Your task to perform on an android device: Open Reddit.com Image 0: 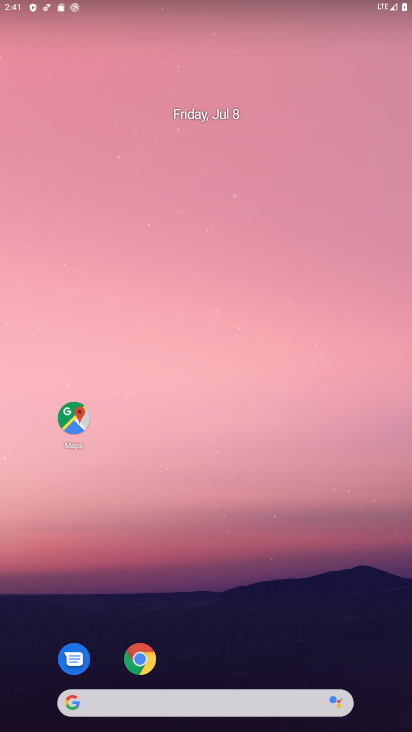
Step 0: press home button
Your task to perform on an android device: Open Reddit.com Image 1: 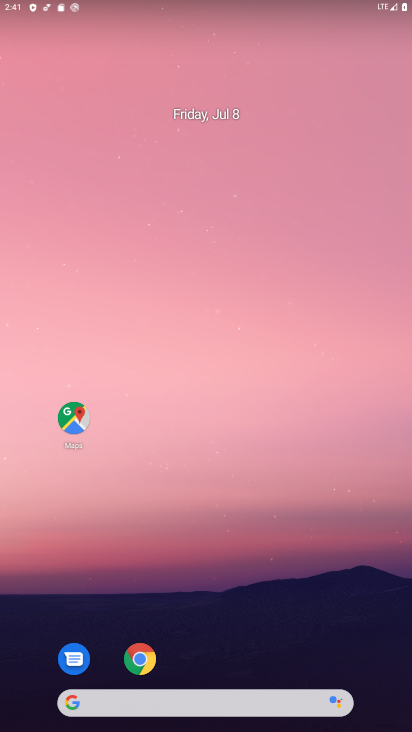
Step 1: click (140, 657)
Your task to perform on an android device: Open Reddit.com Image 2: 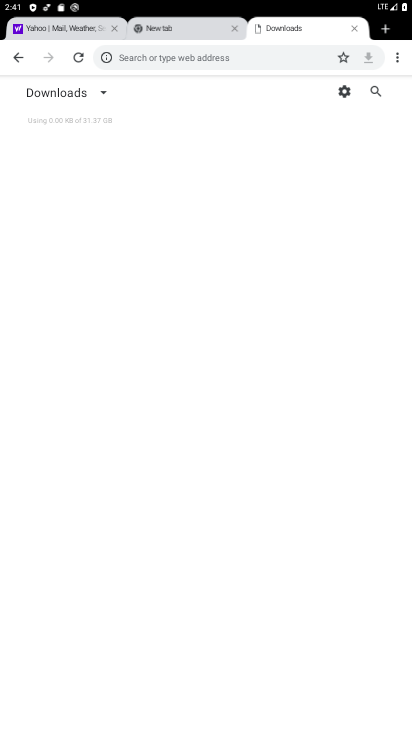
Step 2: click (353, 27)
Your task to perform on an android device: Open Reddit.com Image 3: 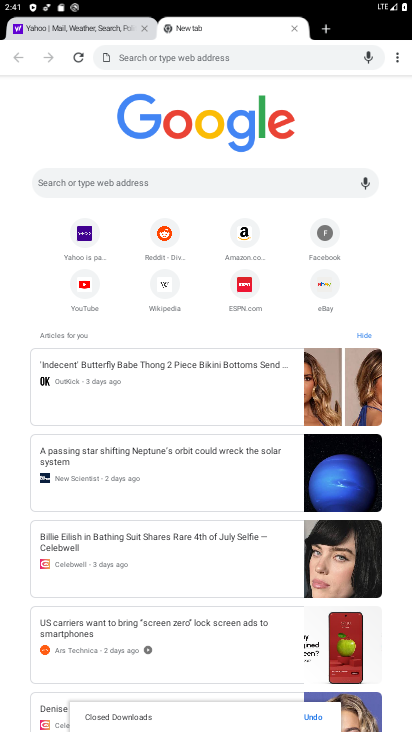
Step 3: click (322, 26)
Your task to perform on an android device: Open Reddit.com Image 4: 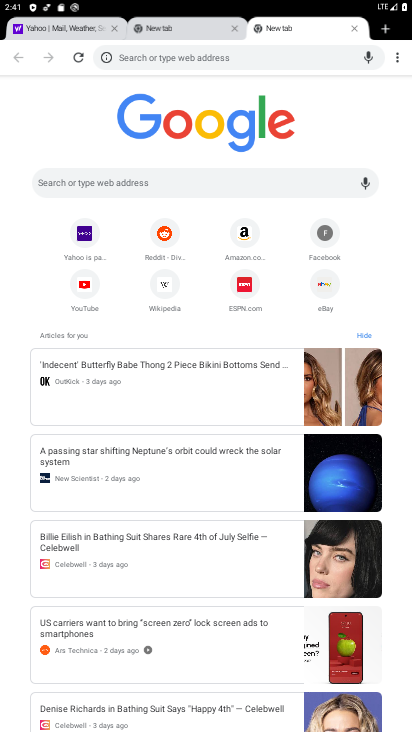
Step 4: click (163, 233)
Your task to perform on an android device: Open Reddit.com Image 5: 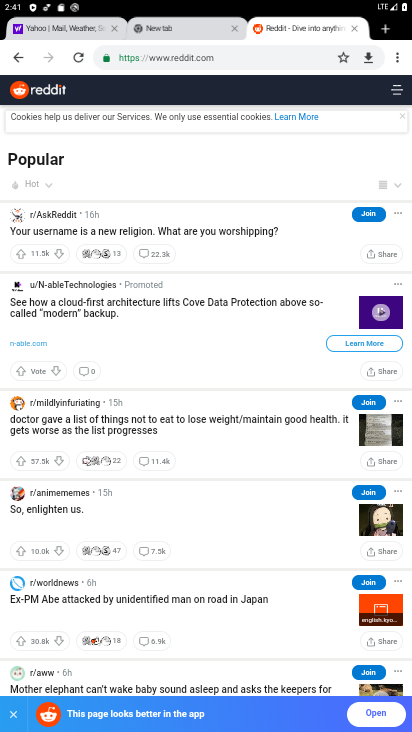
Step 5: task complete